Your task to perform on an android device: Open eBay Image 0: 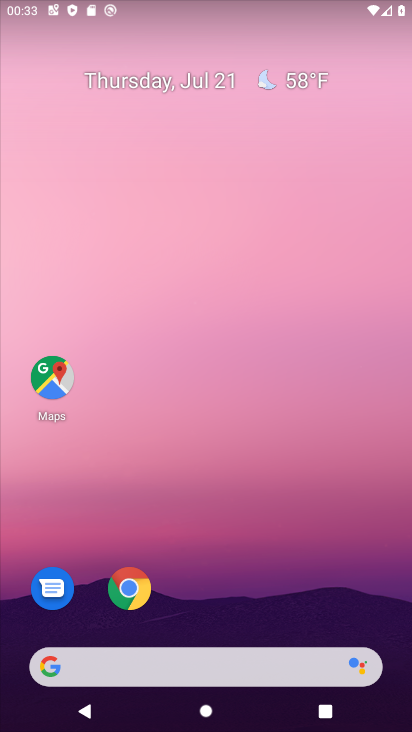
Step 0: click (132, 592)
Your task to perform on an android device: Open eBay Image 1: 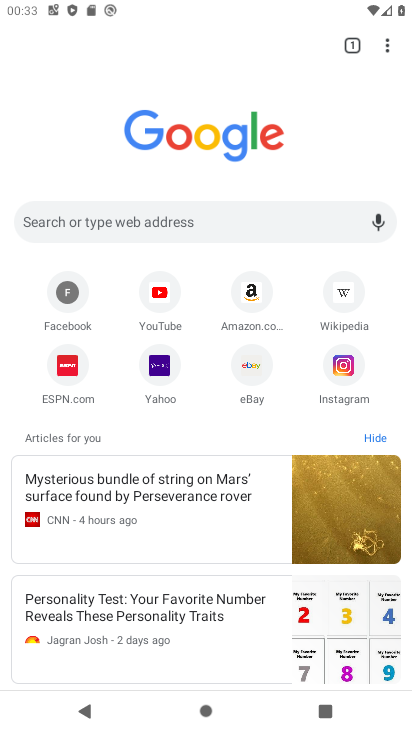
Step 1: click (252, 378)
Your task to perform on an android device: Open eBay Image 2: 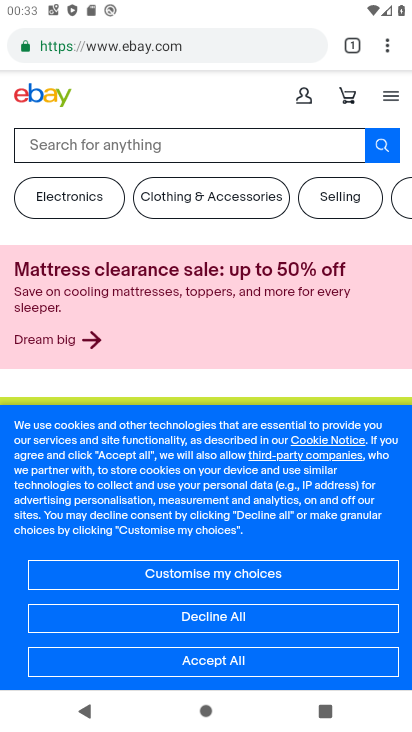
Step 2: task complete